Your task to perform on an android device: open a bookmark in the chrome app Image 0: 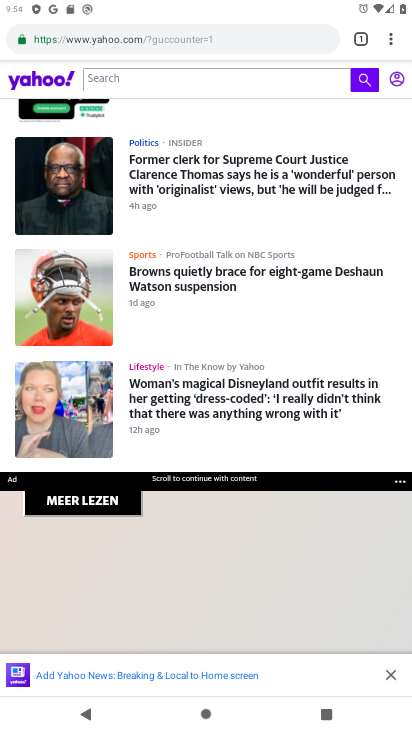
Step 0: press home button
Your task to perform on an android device: open a bookmark in the chrome app Image 1: 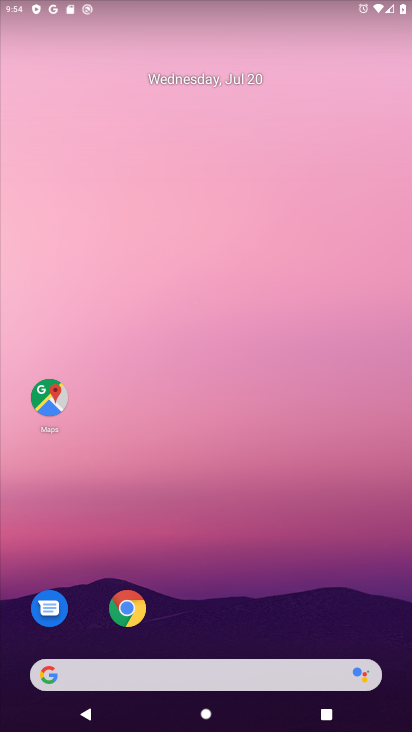
Step 1: click (121, 604)
Your task to perform on an android device: open a bookmark in the chrome app Image 2: 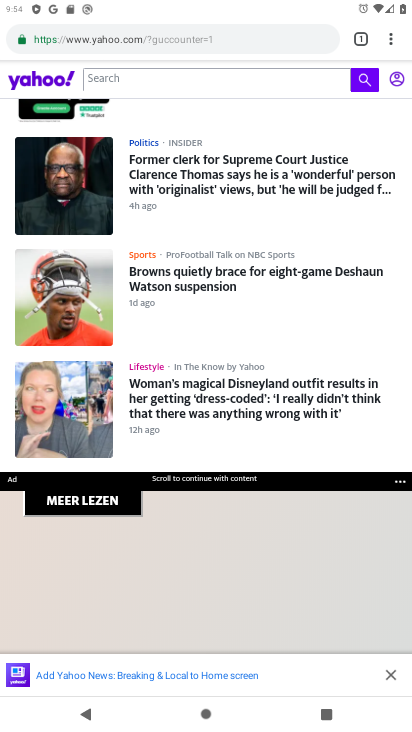
Step 2: click (389, 40)
Your task to perform on an android device: open a bookmark in the chrome app Image 3: 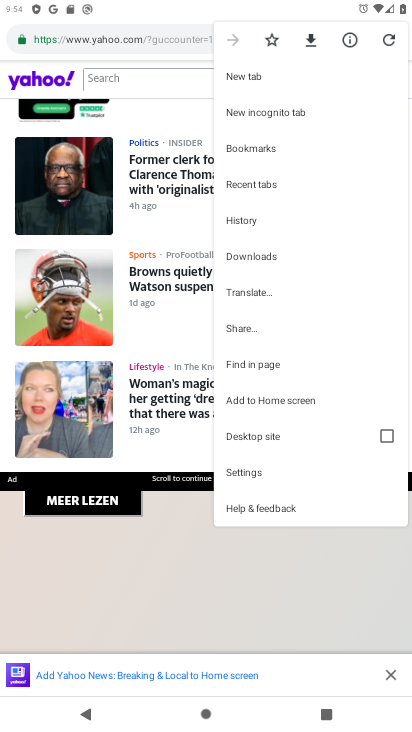
Step 3: click (271, 147)
Your task to perform on an android device: open a bookmark in the chrome app Image 4: 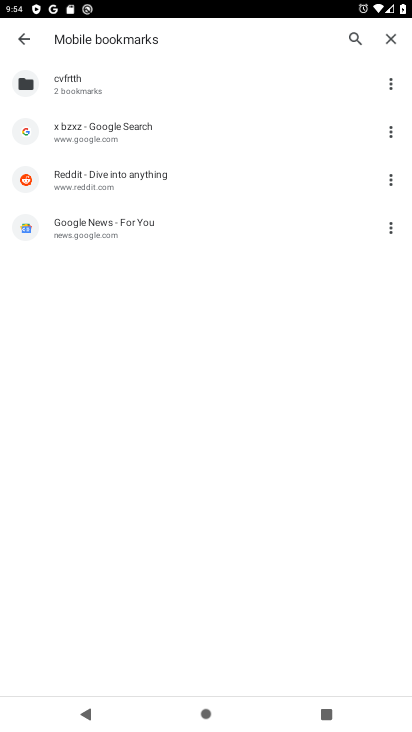
Step 4: task complete